Your task to perform on an android device: delete browsing data in the chrome app Image 0: 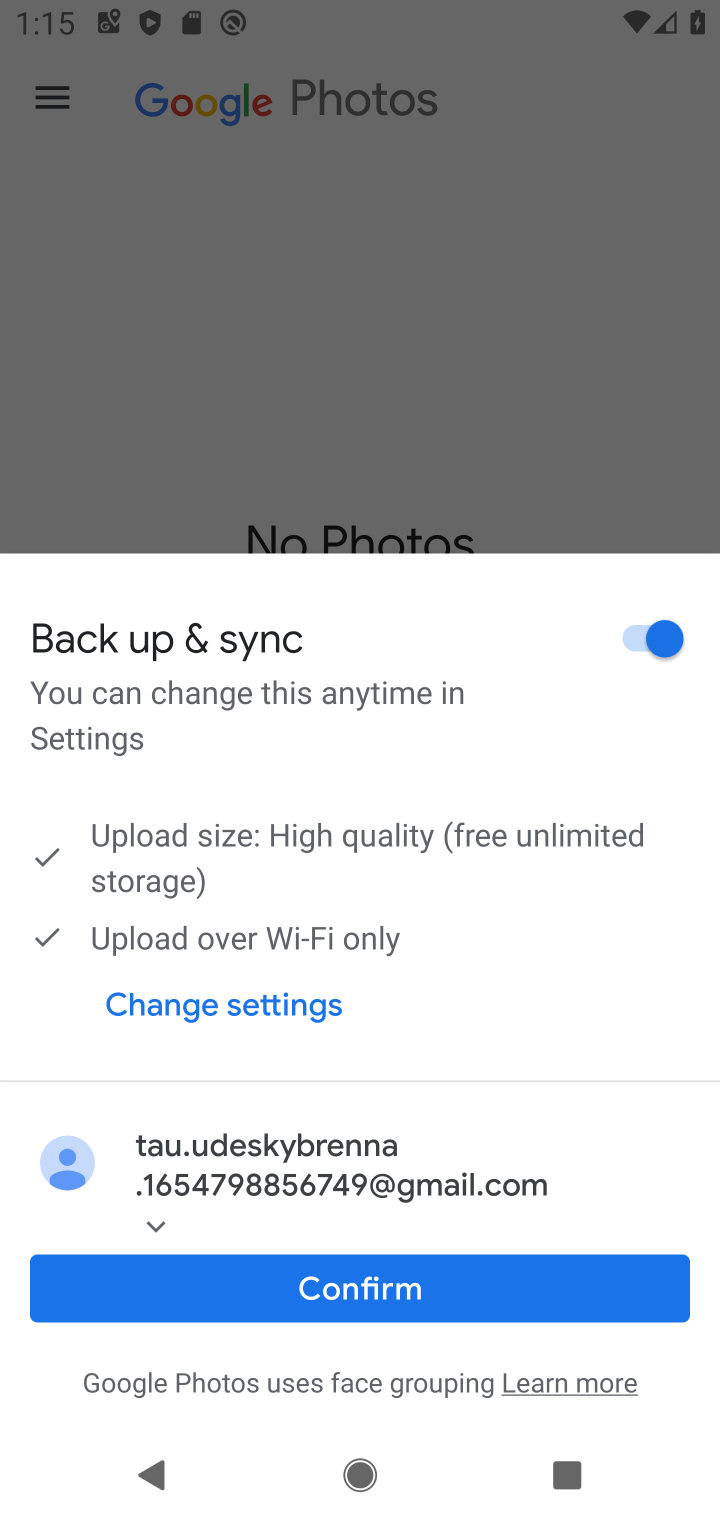
Step 0: press back button
Your task to perform on an android device: delete browsing data in the chrome app Image 1: 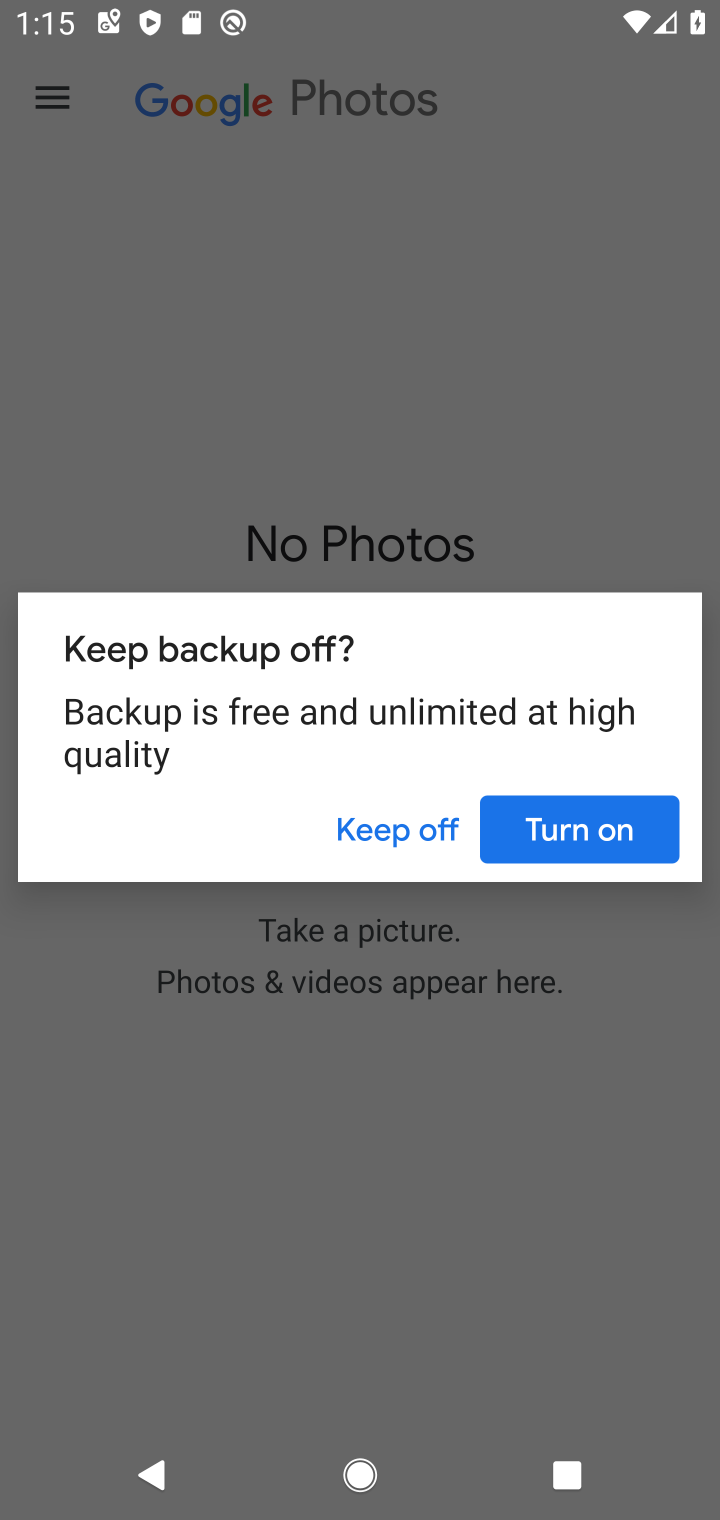
Step 1: press home button
Your task to perform on an android device: delete browsing data in the chrome app Image 2: 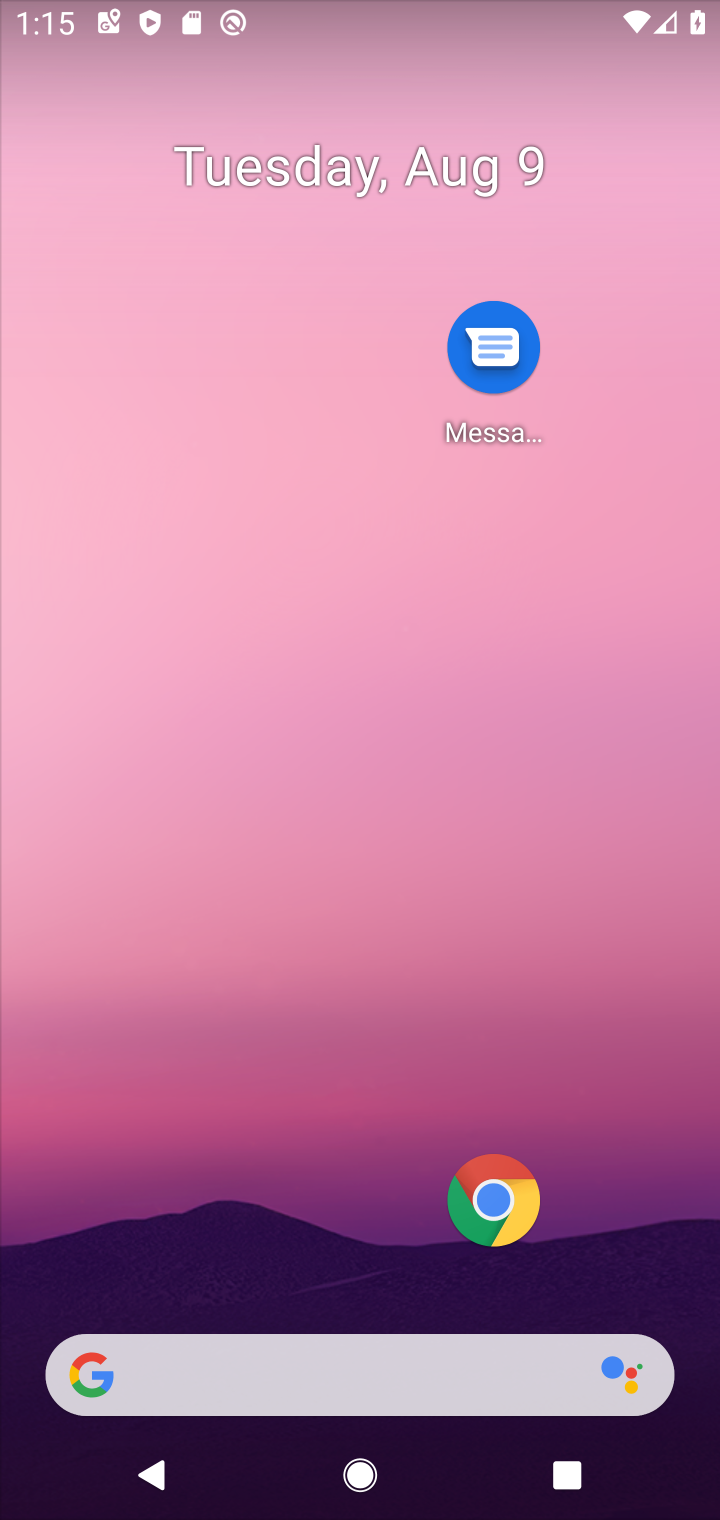
Step 2: click (511, 1198)
Your task to perform on an android device: delete browsing data in the chrome app Image 3: 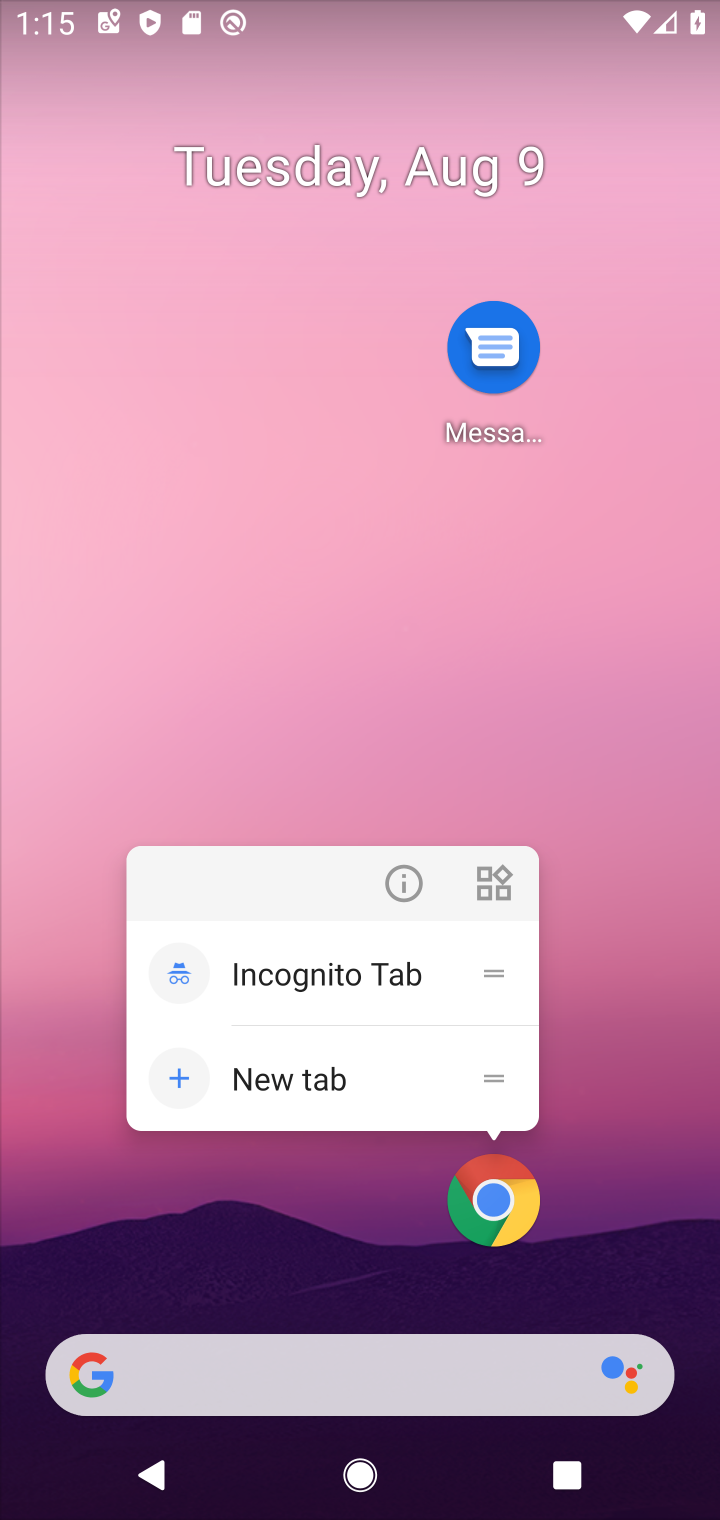
Step 3: click (478, 1193)
Your task to perform on an android device: delete browsing data in the chrome app Image 4: 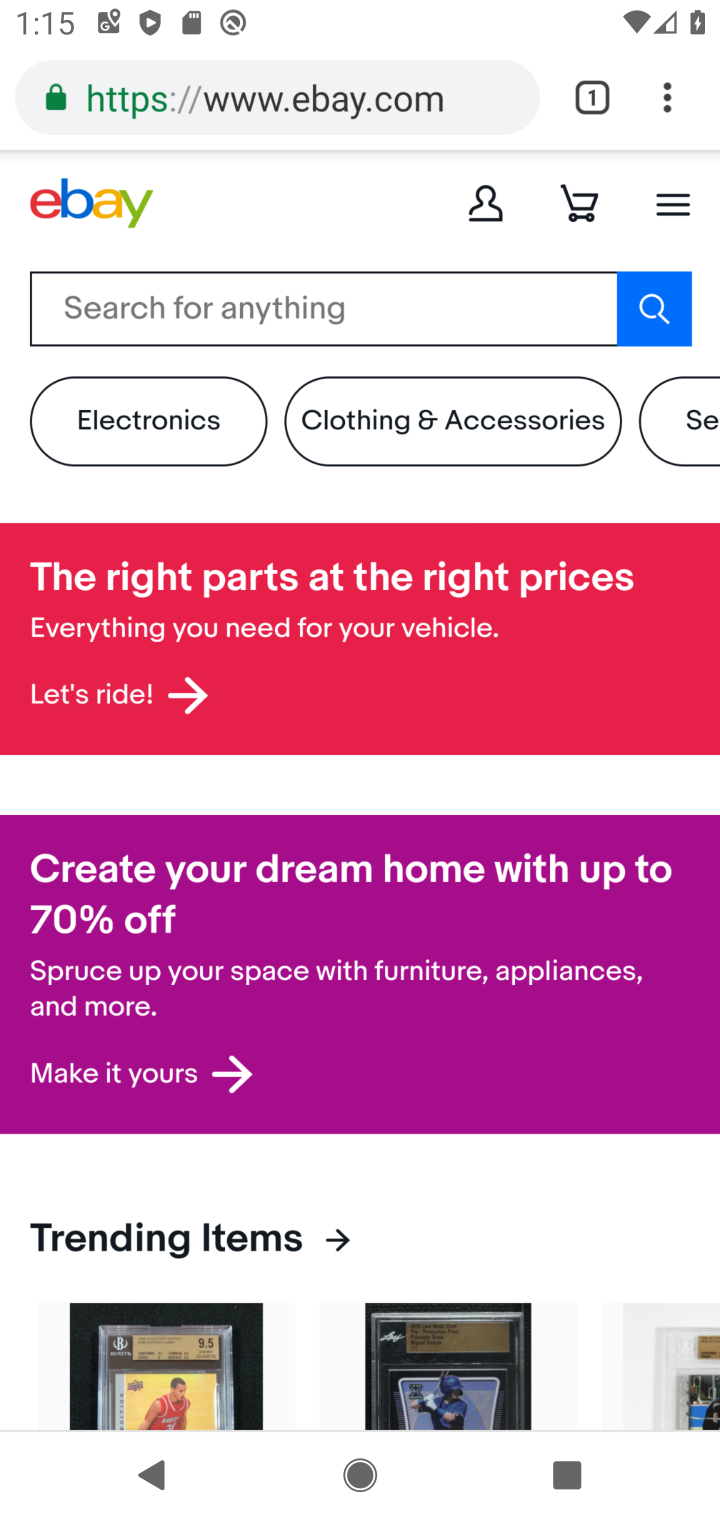
Step 4: click (483, 1208)
Your task to perform on an android device: delete browsing data in the chrome app Image 5: 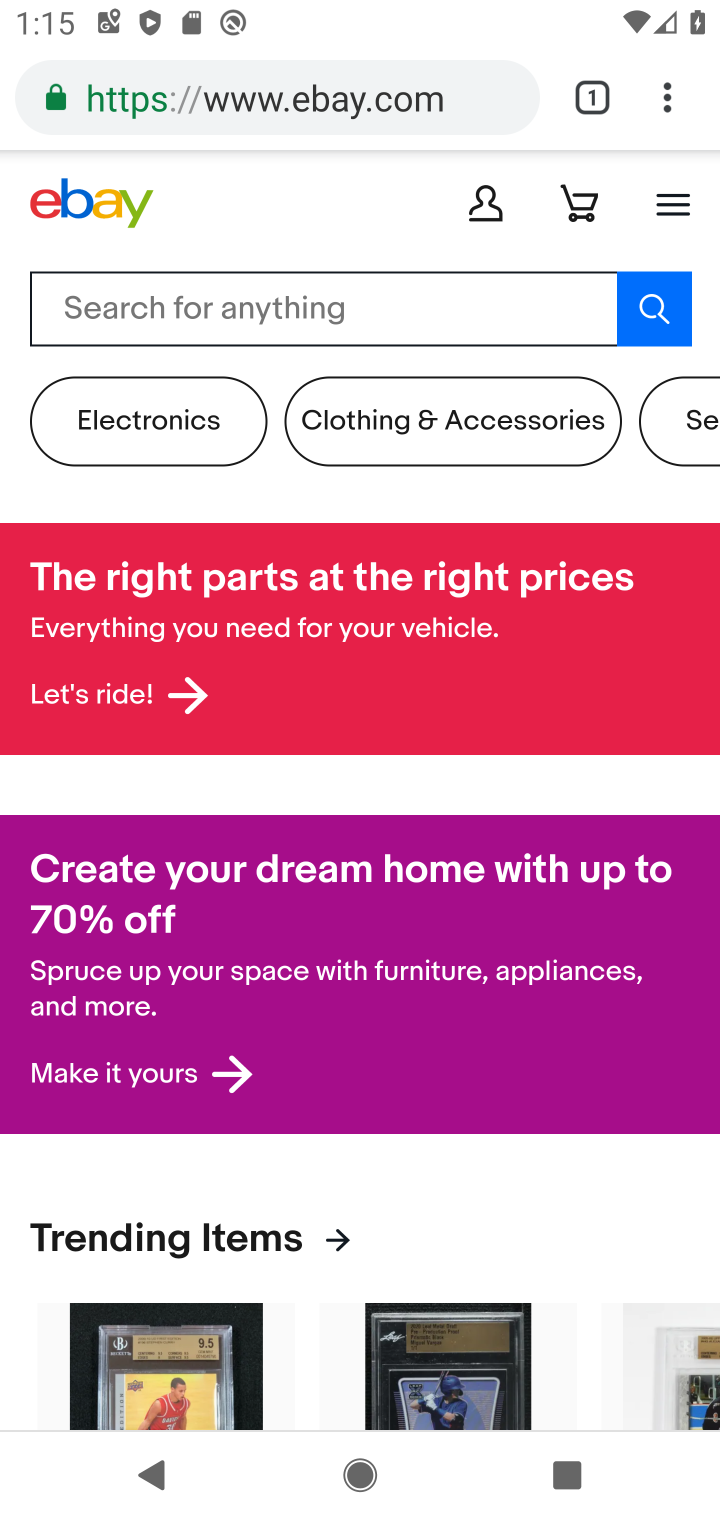
Step 5: drag from (658, 74) to (344, 545)
Your task to perform on an android device: delete browsing data in the chrome app Image 6: 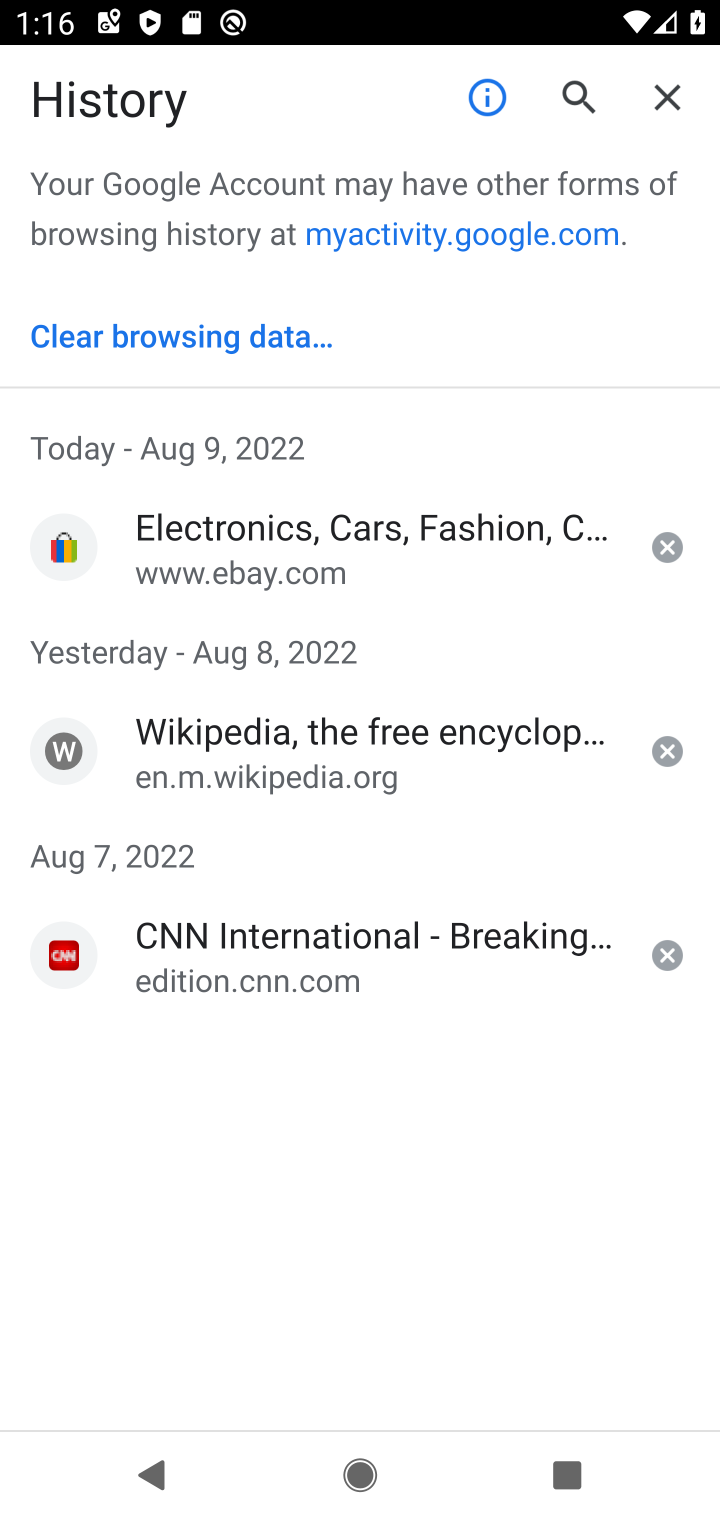
Step 6: click (232, 340)
Your task to perform on an android device: delete browsing data in the chrome app Image 7: 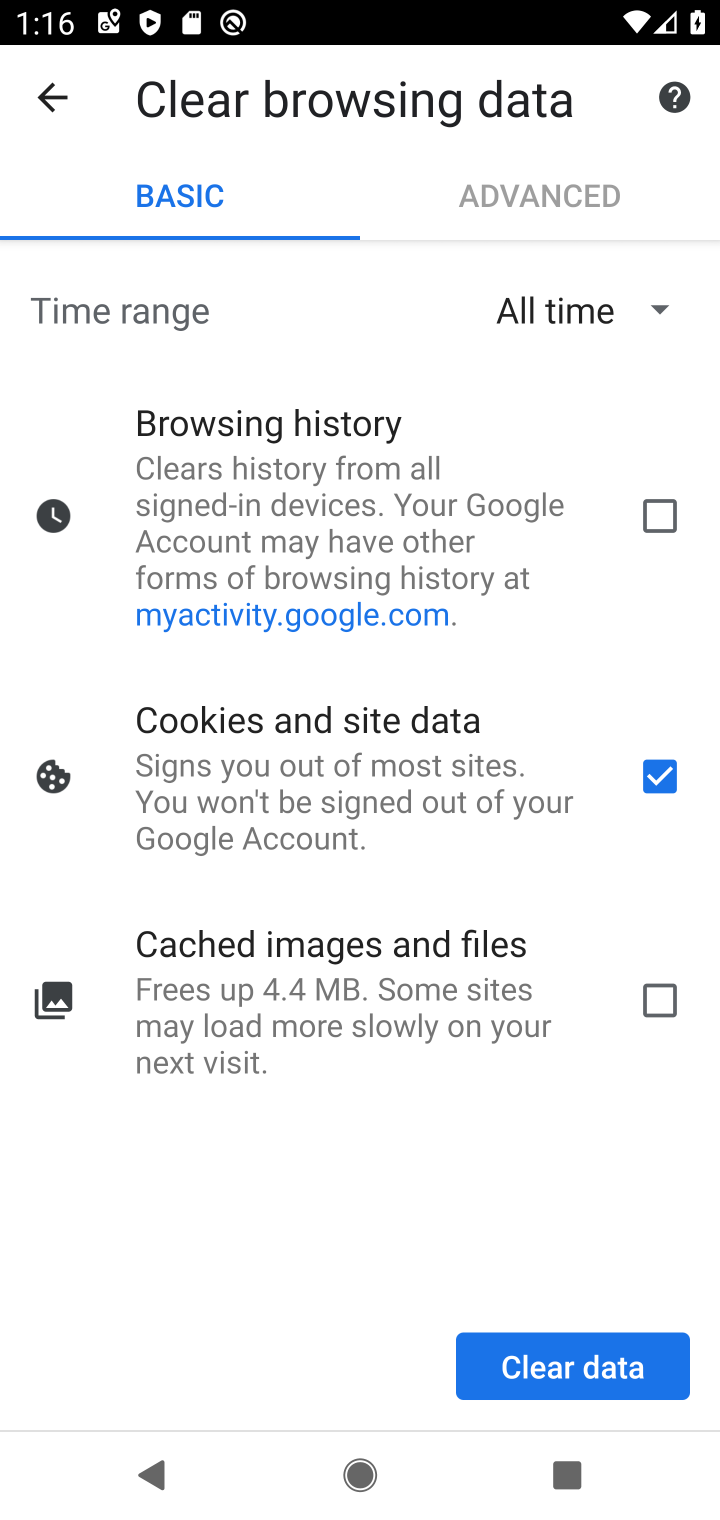
Step 7: click (678, 513)
Your task to perform on an android device: delete browsing data in the chrome app Image 8: 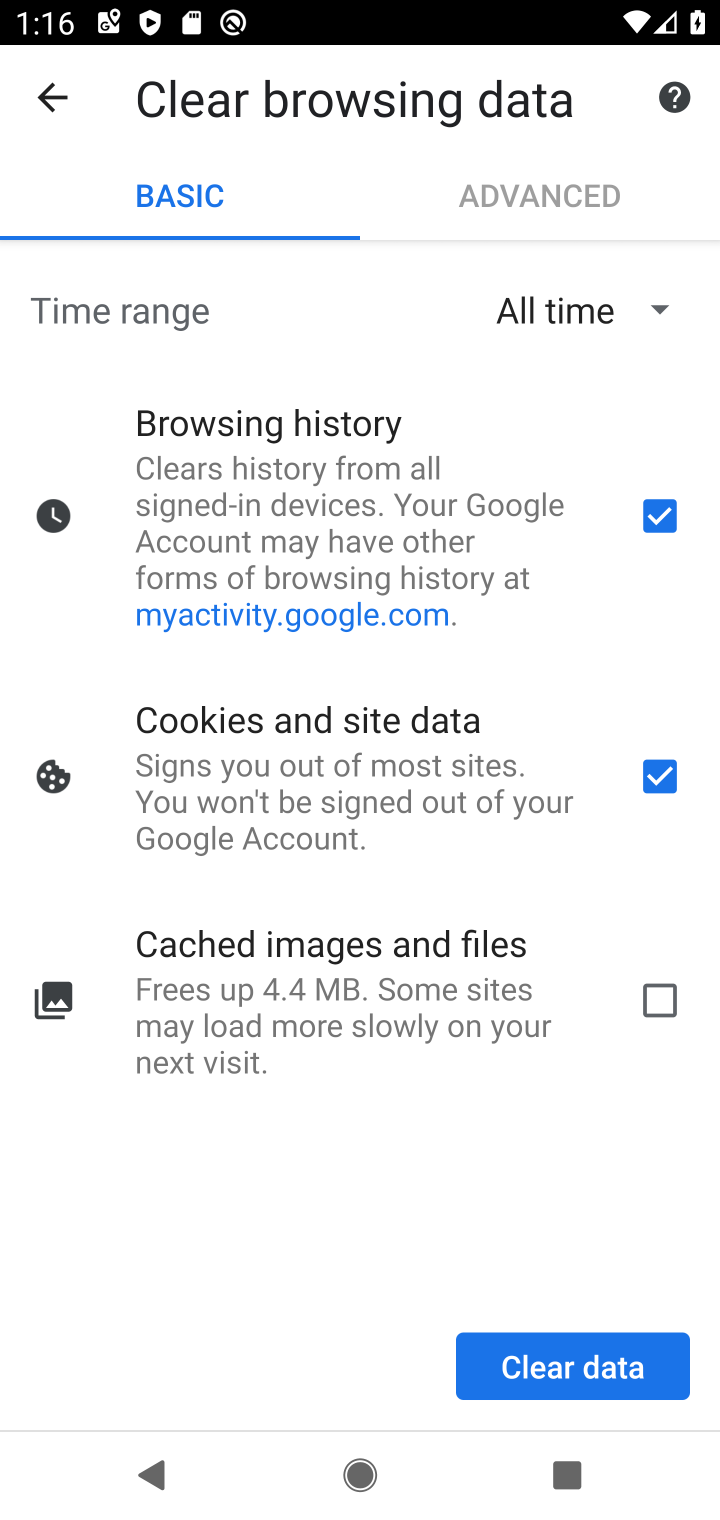
Step 8: click (664, 1011)
Your task to perform on an android device: delete browsing data in the chrome app Image 9: 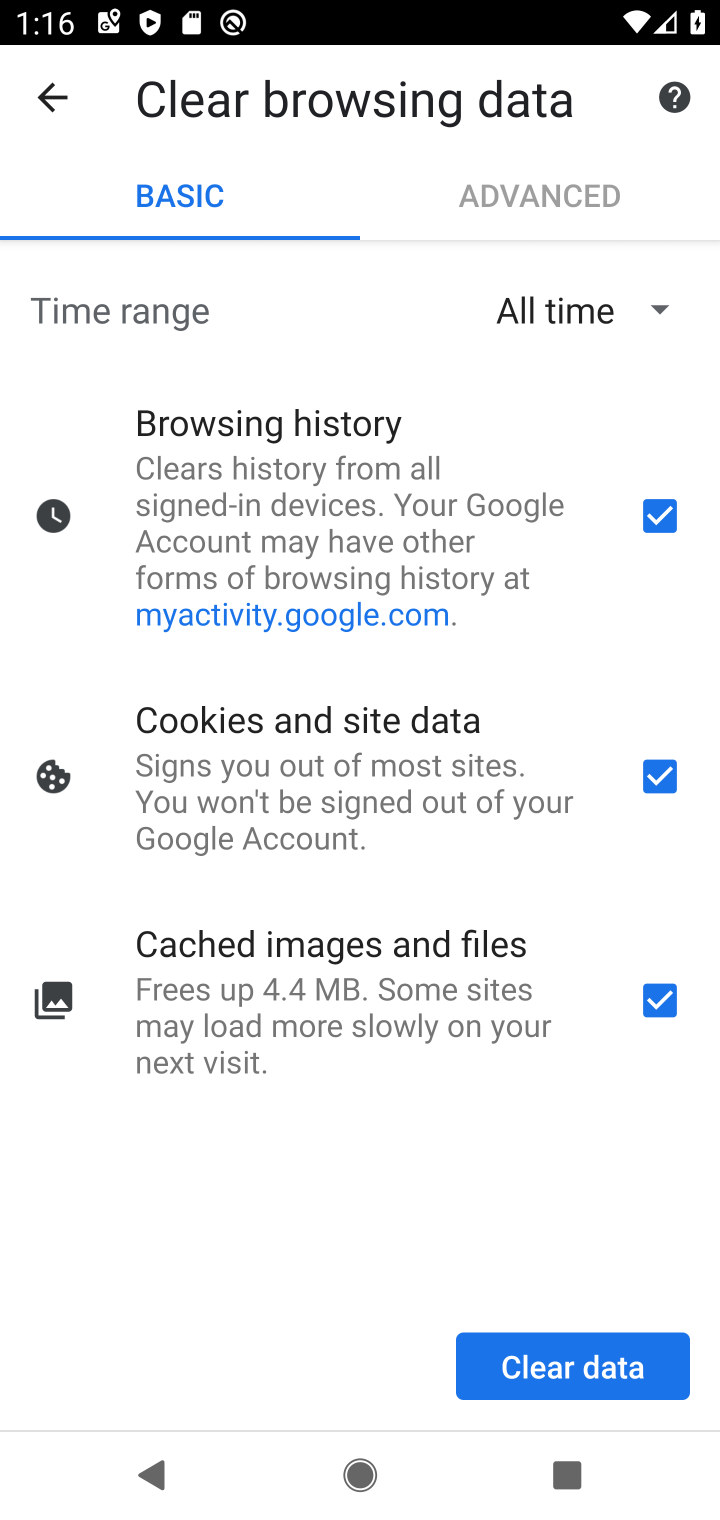
Step 9: click (545, 1359)
Your task to perform on an android device: delete browsing data in the chrome app Image 10: 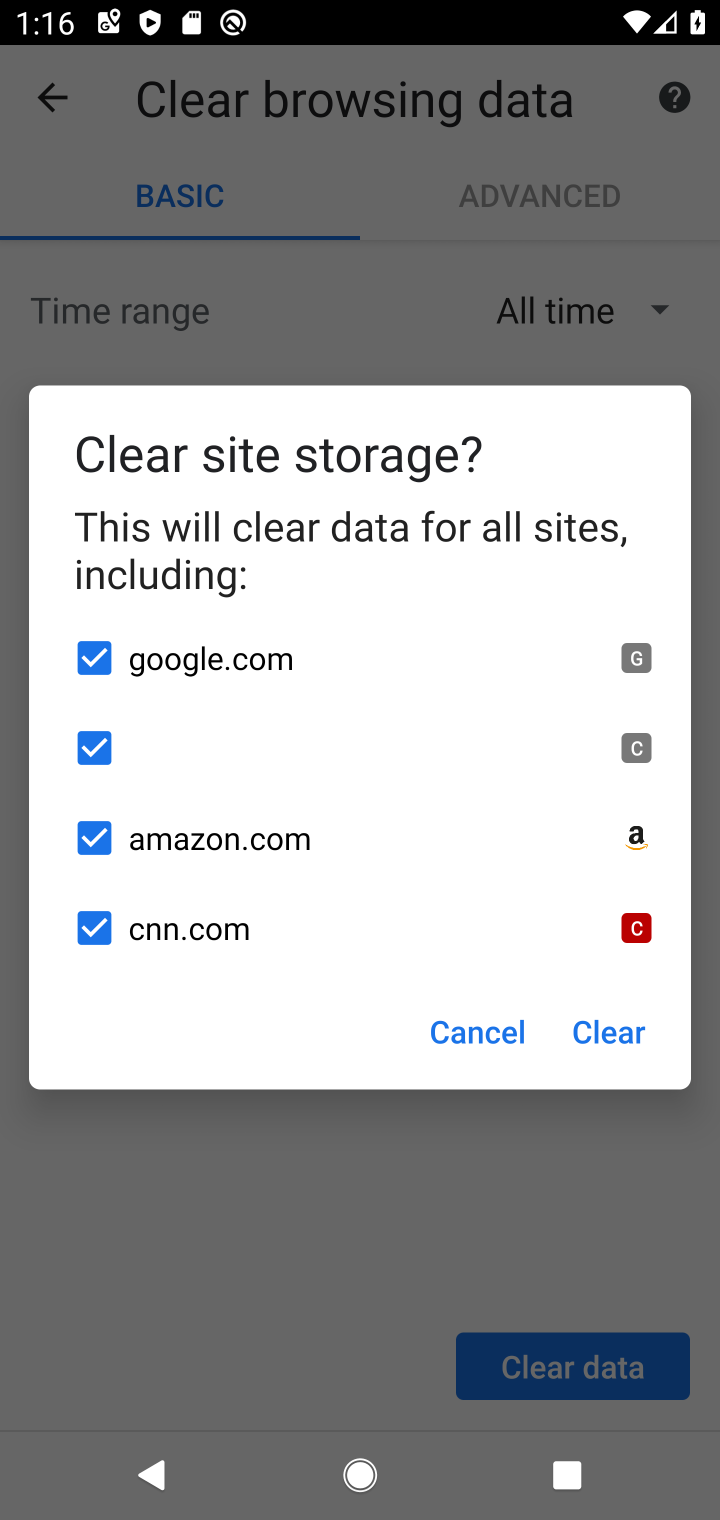
Step 10: click (611, 989)
Your task to perform on an android device: delete browsing data in the chrome app Image 11: 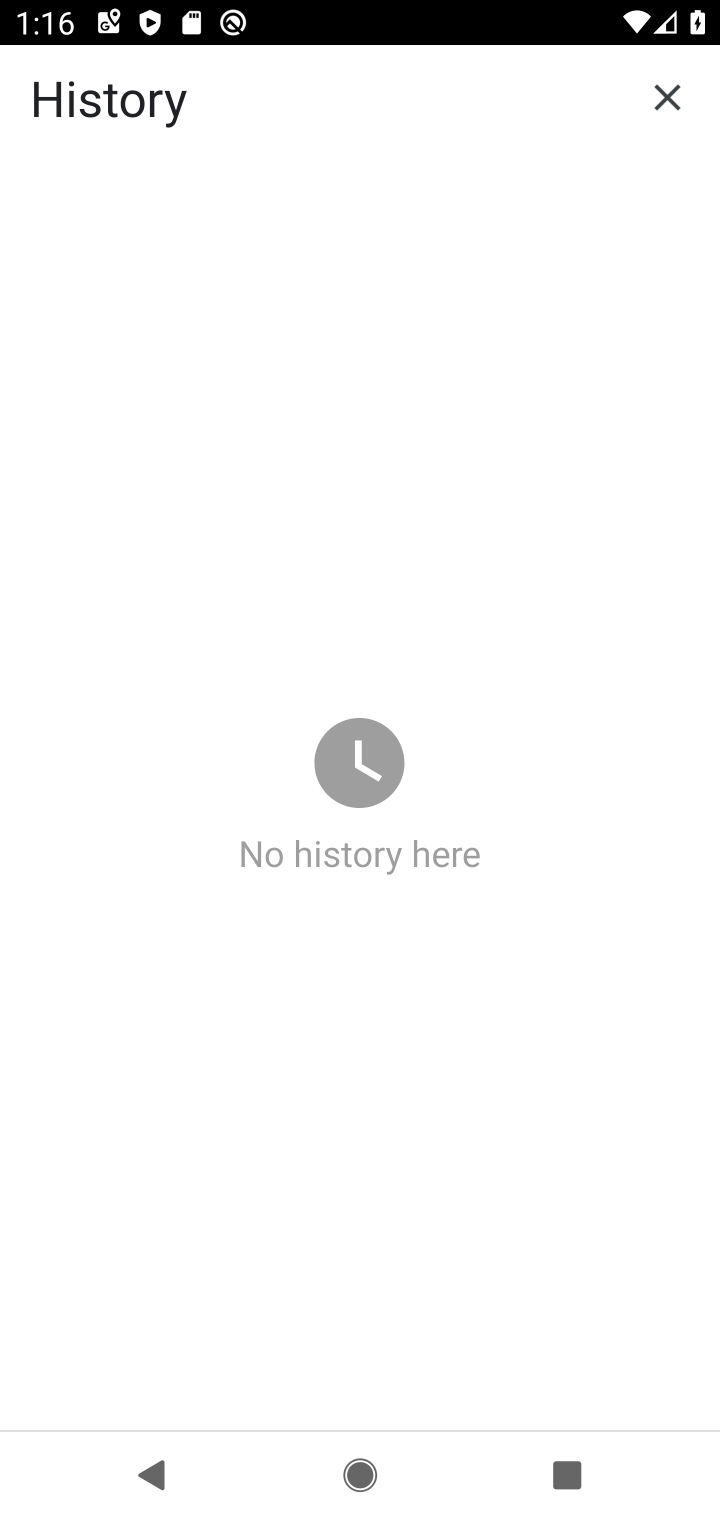
Step 11: task complete